Your task to perform on an android device: Go to CNN.com Image 0: 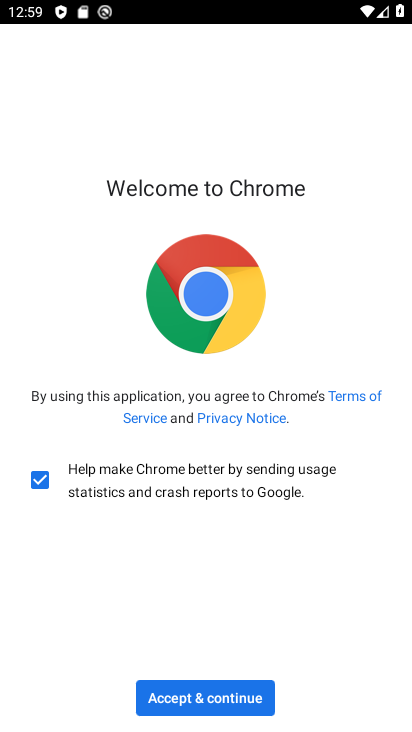
Step 0: click (225, 692)
Your task to perform on an android device: Go to CNN.com Image 1: 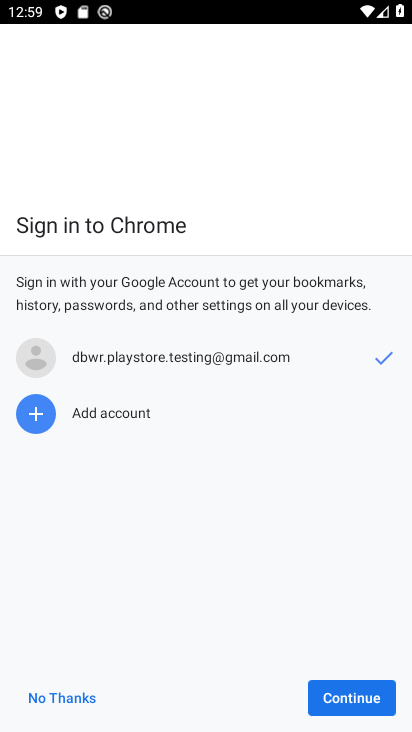
Step 1: click (375, 703)
Your task to perform on an android device: Go to CNN.com Image 2: 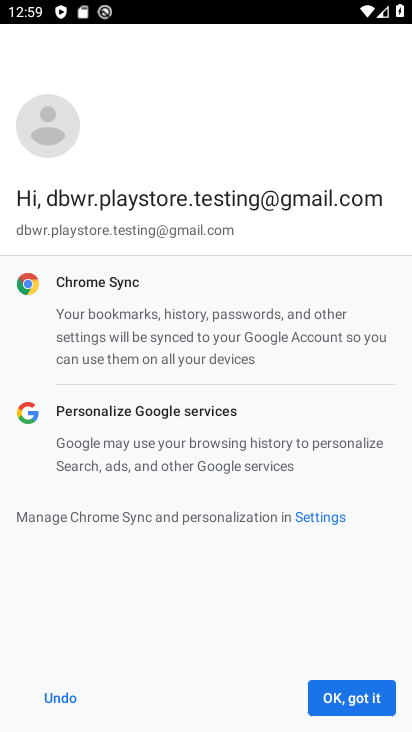
Step 2: click (375, 703)
Your task to perform on an android device: Go to CNN.com Image 3: 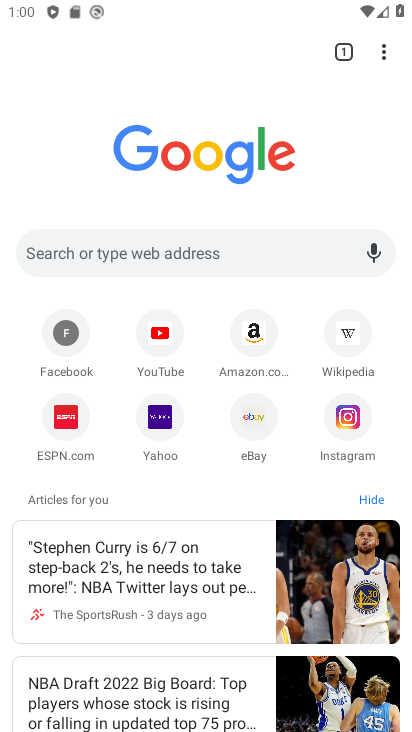
Step 3: click (257, 254)
Your task to perform on an android device: Go to CNN.com Image 4: 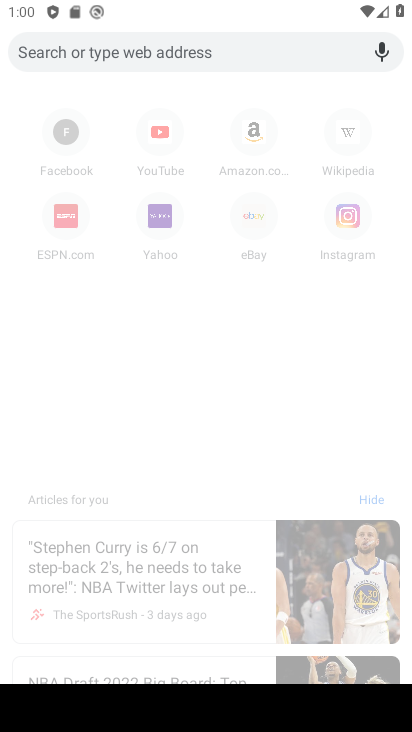
Step 4: type "CNN.com"
Your task to perform on an android device: Go to CNN.com Image 5: 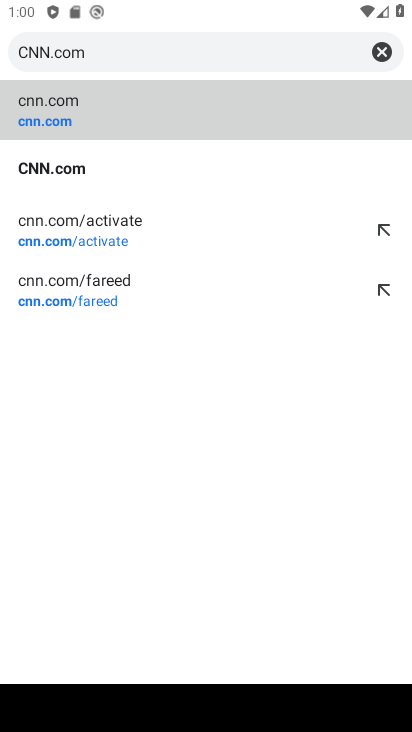
Step 5: click (337, 119)
Your task to perform on an android device: Go to CNN.com Image 6: 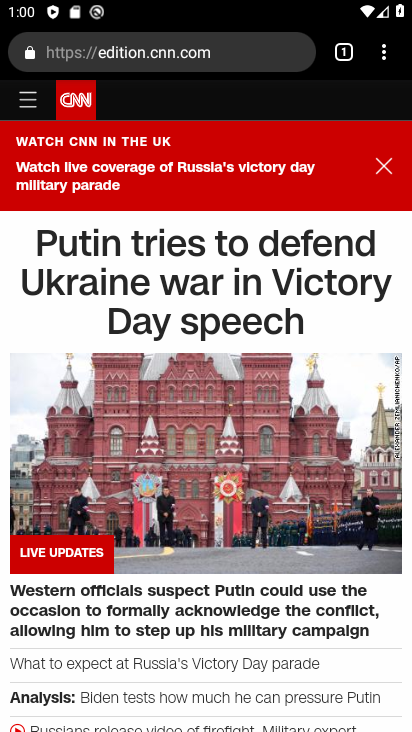
Step 6: task complete